Your task to perform on an android device: Set the phone to "Do not disturb". Image 0: 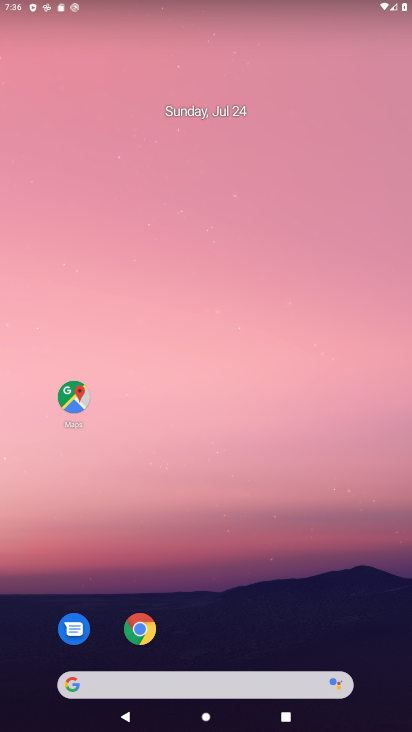
Step 0: drag from (198, 0) to (308, 658)
Your task to perform on an android device: Set the phone to "Do not disturb". Image 1: 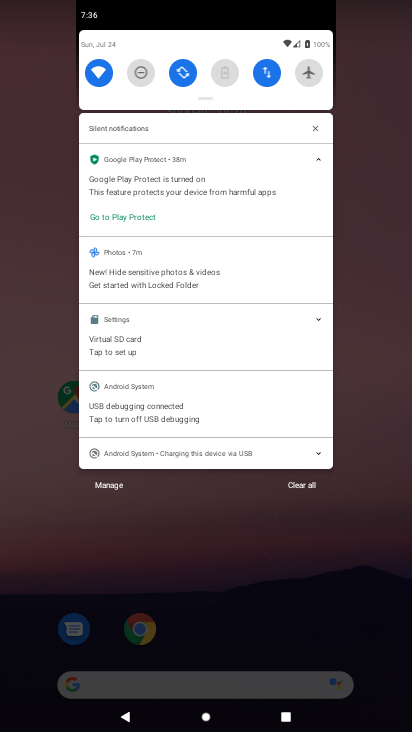
Step 1: click (146, 70)
Your task to perform on an android device: Set the phone to "Do not disturb". Image 2: 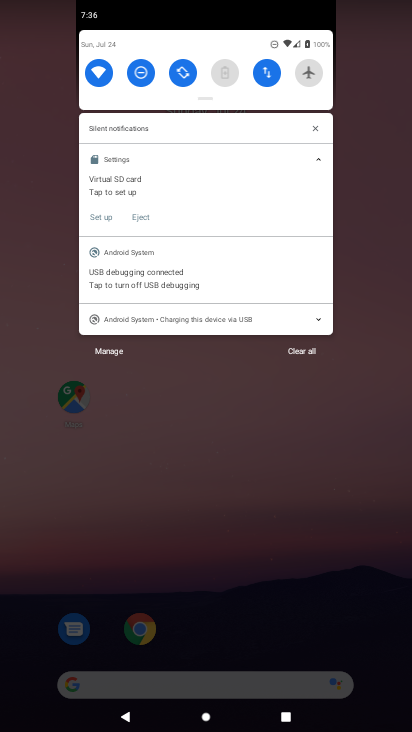
Step 2: task complete